Your task to perform on an android device: visit the assistant section in the google photos Image 0: 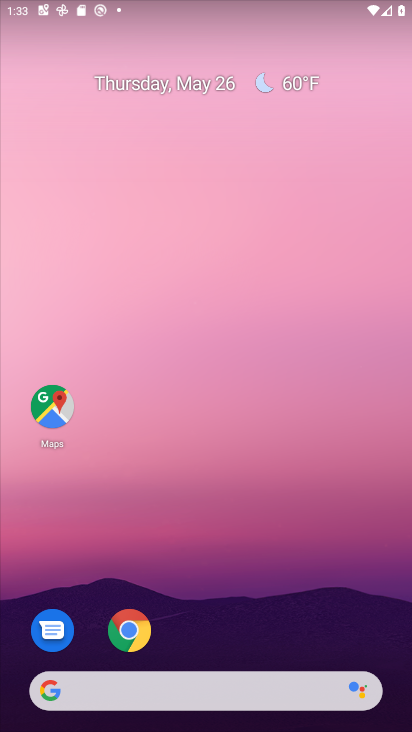
Step 0: drag from (348, 368) to (337, 9)
Your task to perform on an android device: visit the assistant section in the google photos Image 1: 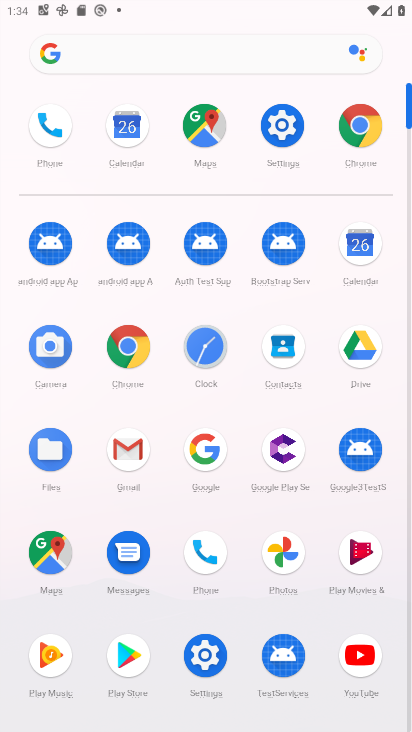
Step 1: click (270, 553)
Your task to perform on an android device: visit the assistant section in the google photos Image 2: 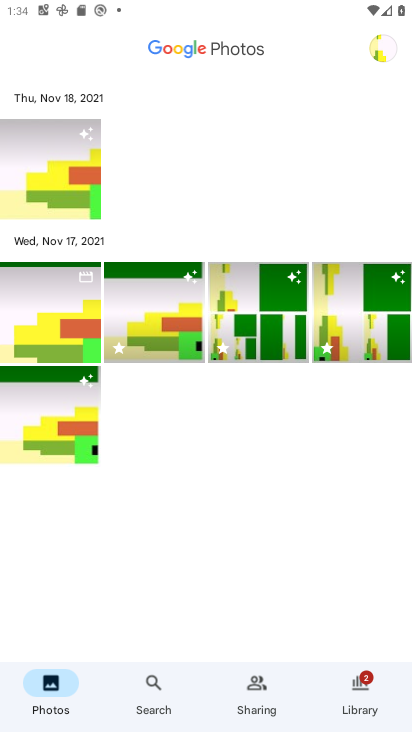
Step 2: task complete